Your task to perform on an android device: Open Yahoo.com Image 0: 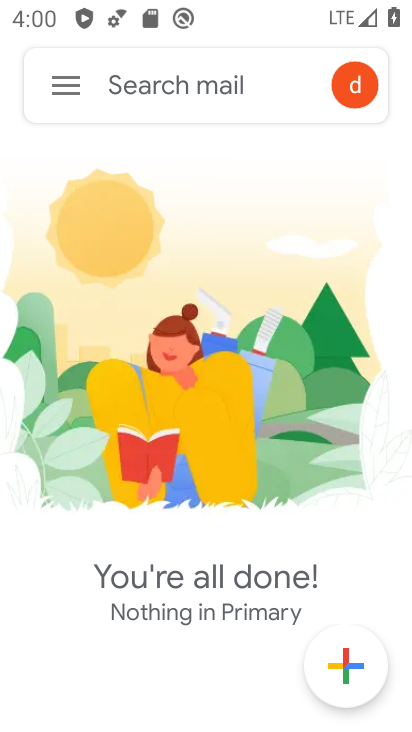
Step 0: press back button
Your task to perform on an android device: Open Yahoo.com Image 1: 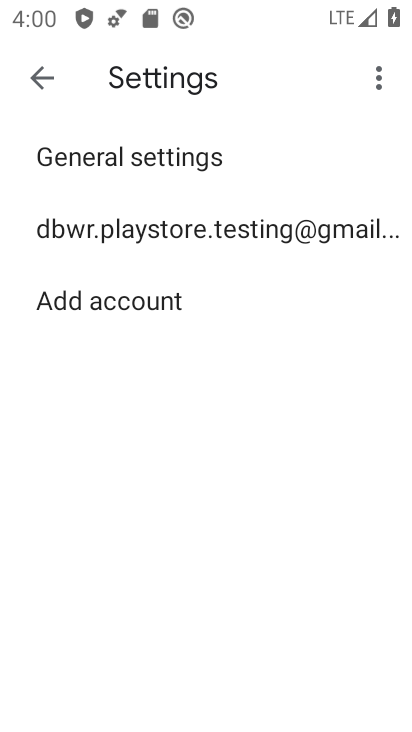
Step 1: press back button
Your task to perform on an android device: Open Yahoo.com Image 2: 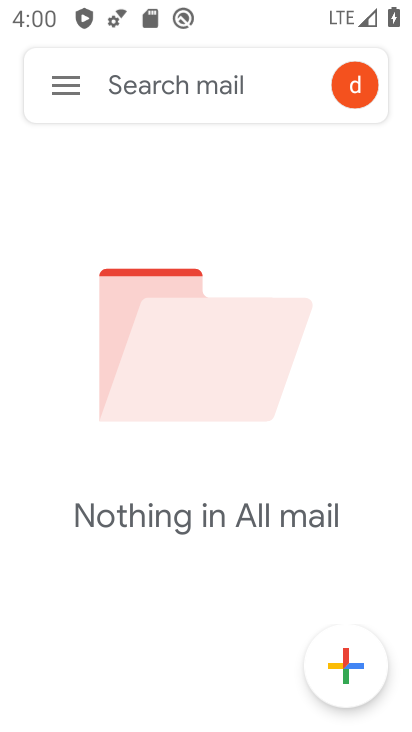
Step 2: press home button
Your task to perform on an android device: Open Yahoo.com Image 3: 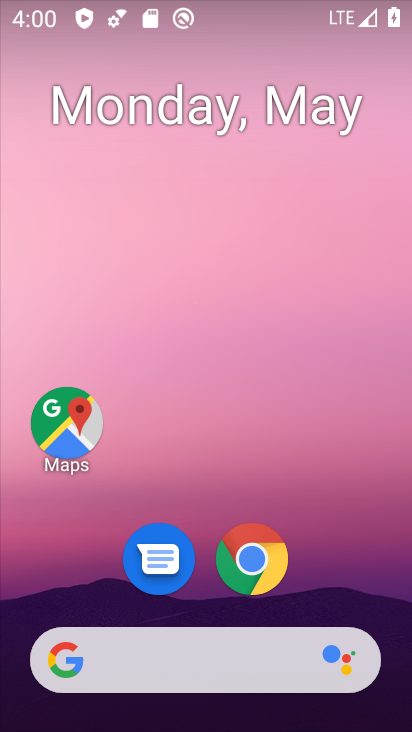
Step 3: drag from (370, 561) to (245, 21)
Your task to perform on an android device: Open Yahoo.com Image 4: 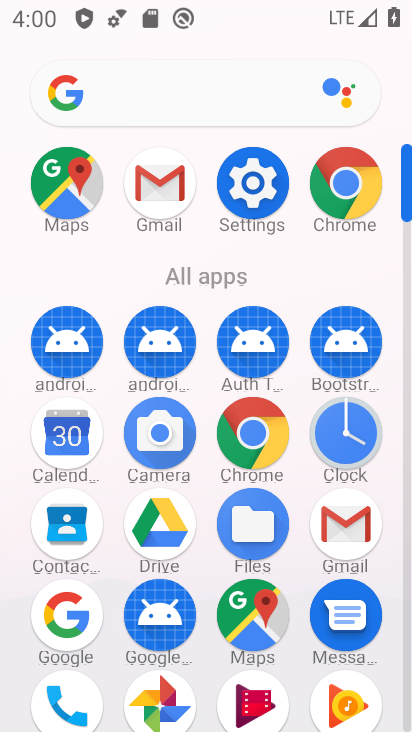
Step 4: click (342, 180)
Your task to perform on an android device: Open Yahoo.com Image 5: 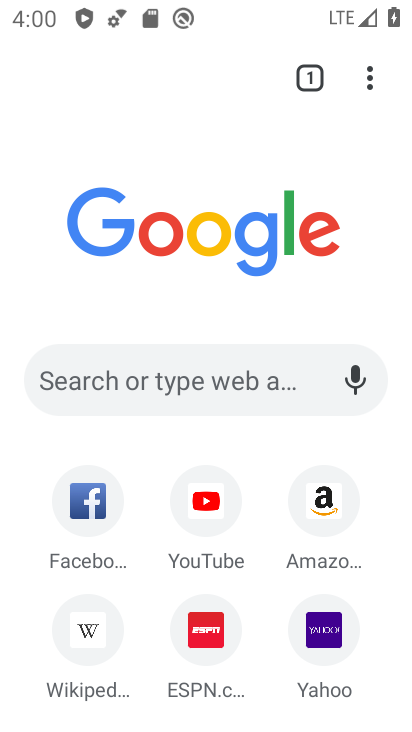
Step 5: click (154, 366)
Your task to perform on an android device: Open Yahoo.com Image 6: 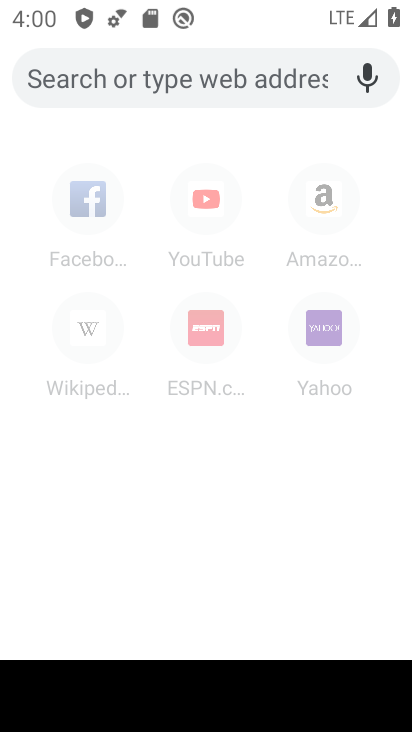
Step 6: click (323, 342)
Your task to perform on an android device: Open Yahoo.com Image 7: 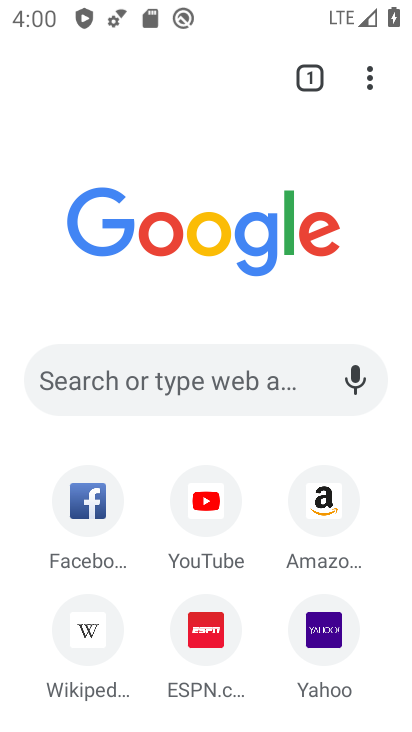
Step 7: click (331, 612)
Your task to perform on an android device: Open Yahoo.com Image 8: 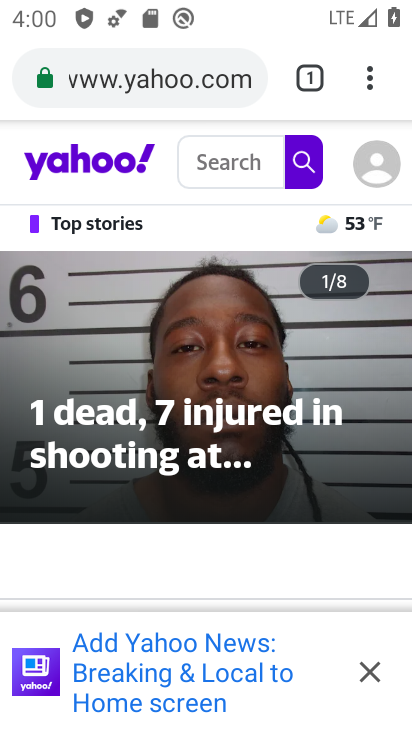
Step 8: task complete